Your task to perform on an android device: toggle notifications settings in the gmail app Image 0: 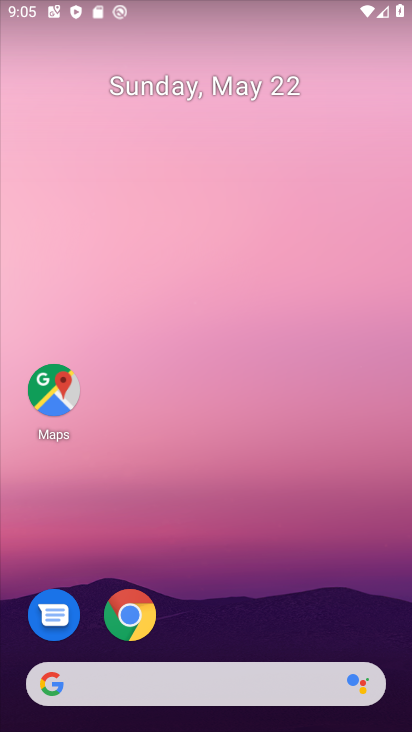
Step 0: drag from (221, 539) to (252, 213)
Your task to perform on an android device: toggle notifications settings in the gmail app Image 1: 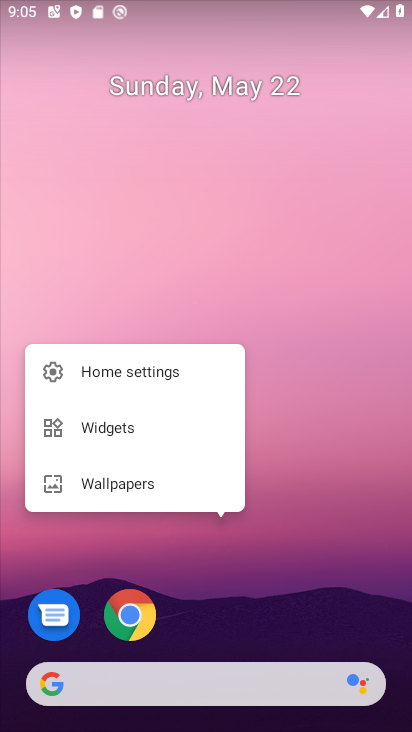
Step 1: click (305, 427)
Your task to perform on an android device: toggle notifications settings in the gmail app Image 2: 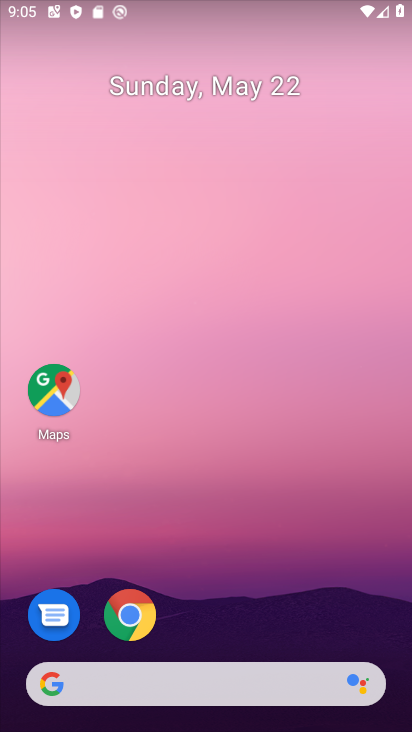
Step 2: drag from (278, 605) to (281, 310)
Your task to perform on an android device: toggle notifications settings in the gmail app Image 3: 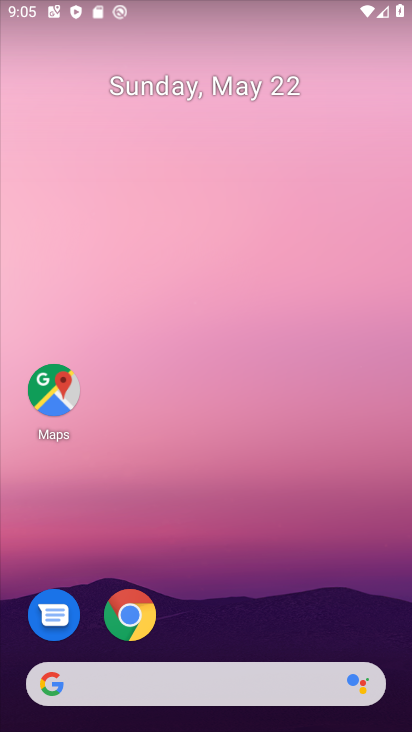
Step 3: drag from (233, 493) to (288, 211)
Your task to perform on an android device: toggle notifications settings in the gmail app Image 4: 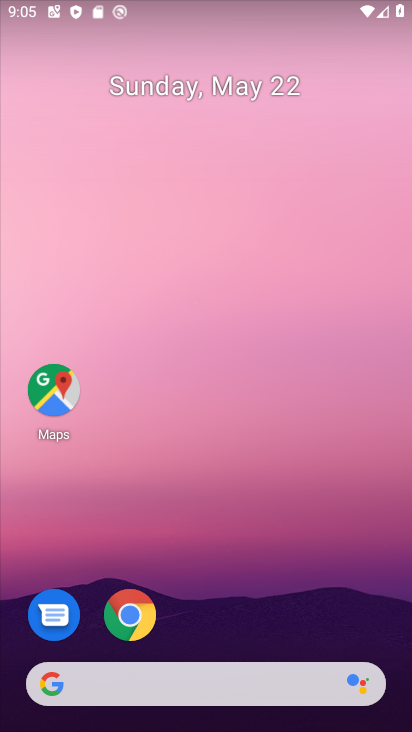
Step 4: drag from (227, 607) to (281, 251)
Your task to perform on an android device: toggle notifications settings in the gmail app Image 5: 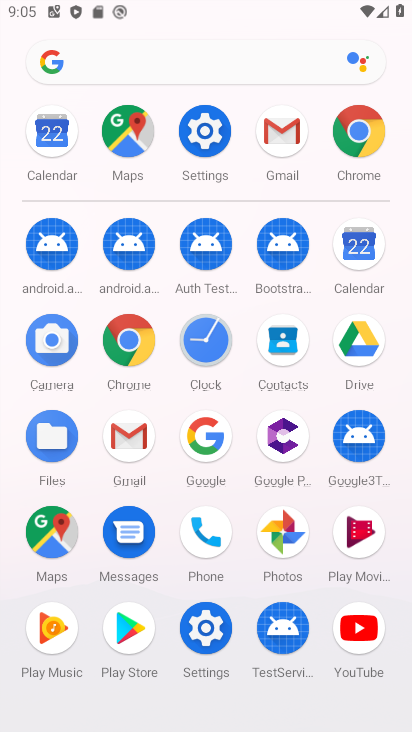
Step 5: click (133, 435)
Your task to perform on an android device: toggle notifications settings in the gmail app Image 6: 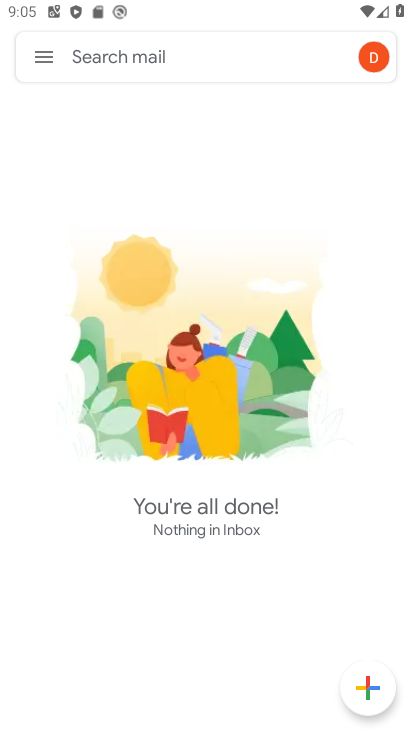
Step 6: click (34, 50)
Your task to perform on an android device: toggle notifications settings in the gmail app Image 7: 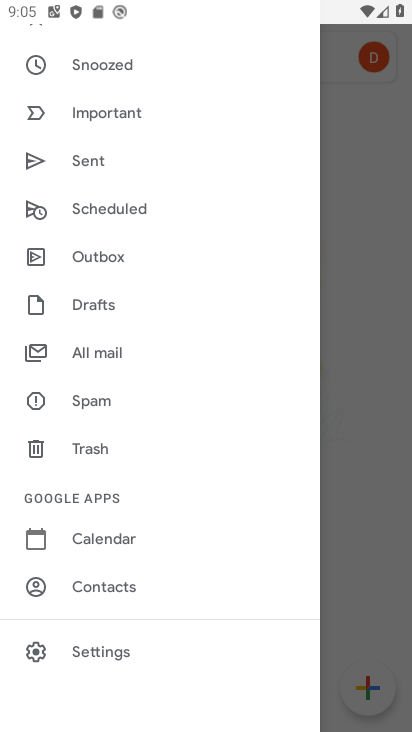
Step 7: click (115, 640)
Your task to perform on an android device: toggle notifications settings in the gmail app Image 8: 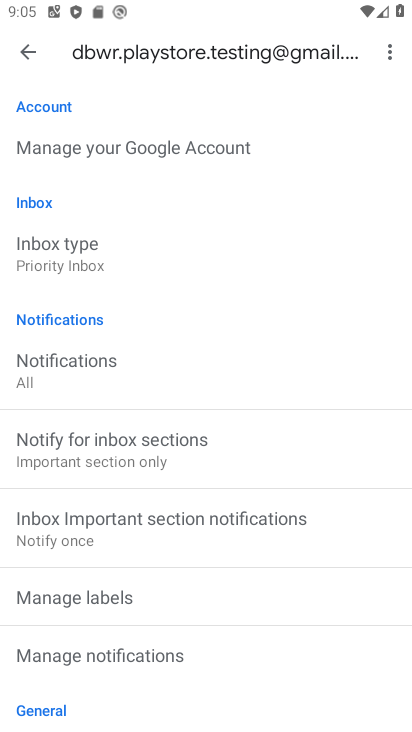
Step 8: click (110, 363)
Your task to perform on an android device: toggle notifications settings in the gmail app Image 9: 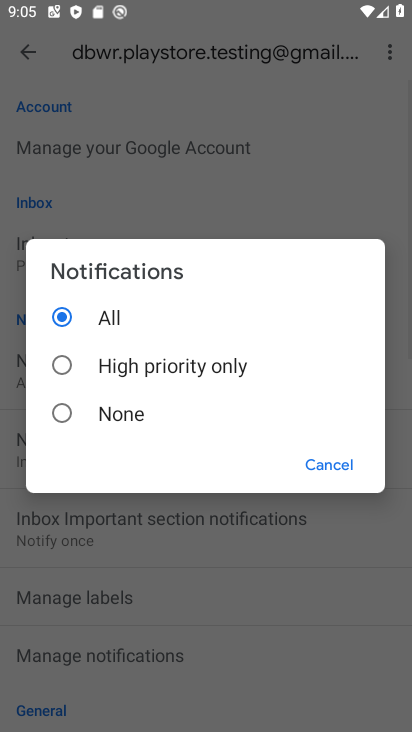
Step 9: click (114, 403)
Your task to perform on an android device: toggle notifications settings in the gmail app Image 10: 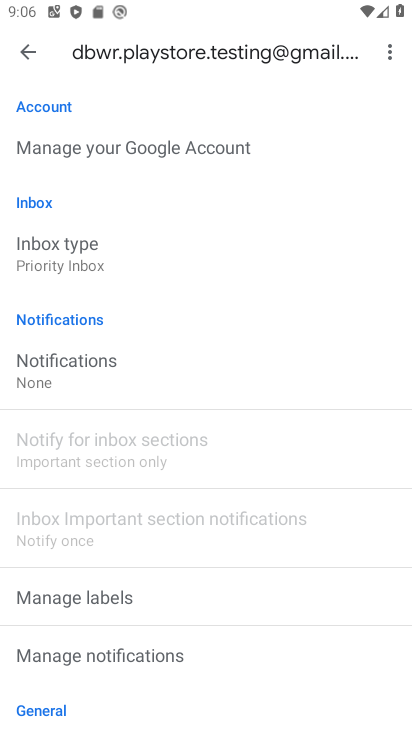
Step 10: task complete